Your task to perform on an android device: change keyboard looks Image 0: 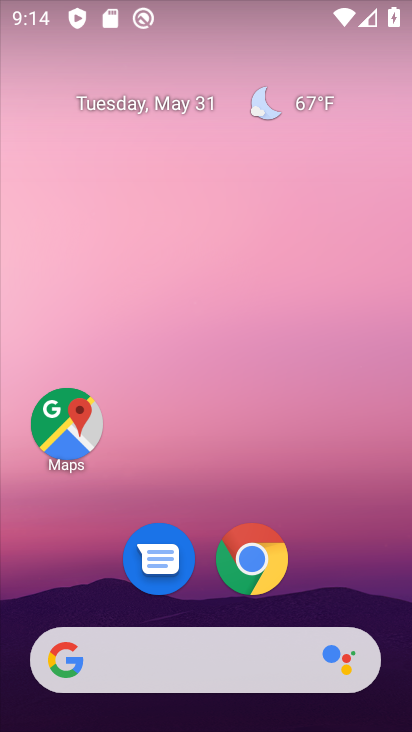
Step 0: drag from (311, 581) to (245, 73)
Your task to perform on an android device: change keyboard looks Image 1: 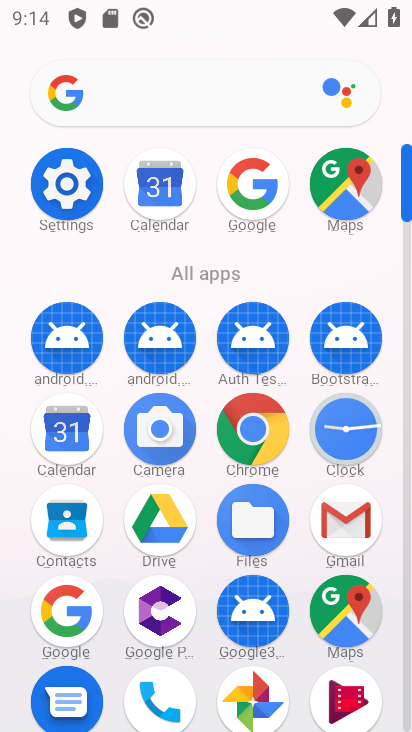
Step 1: click (65, 188)
Your task to perform on an android device: change keyboard looks Image 2: 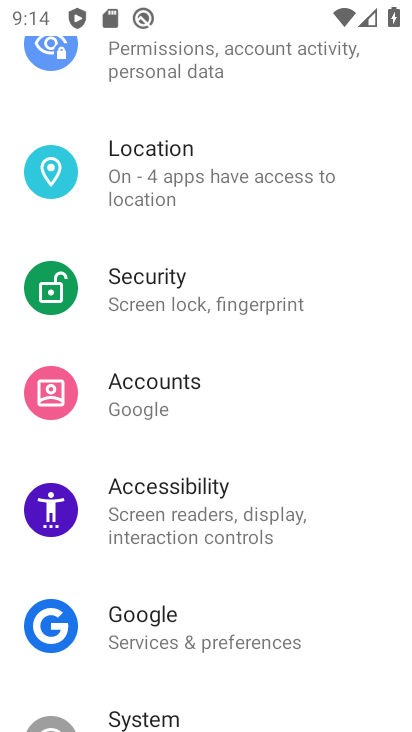
Step 2: drag from (238, 673) to (226, 350)
Your task to perform on an android device: change keyboard looks Image 3: 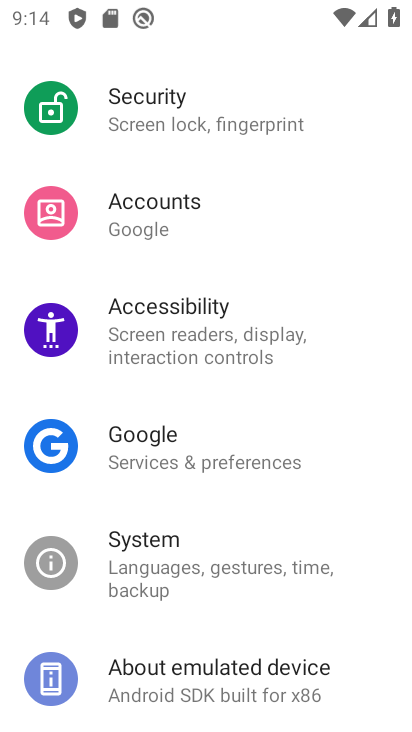
Step 3: click (194, 572)
Your task to perform on an android device: change keyboard looks Image 4: 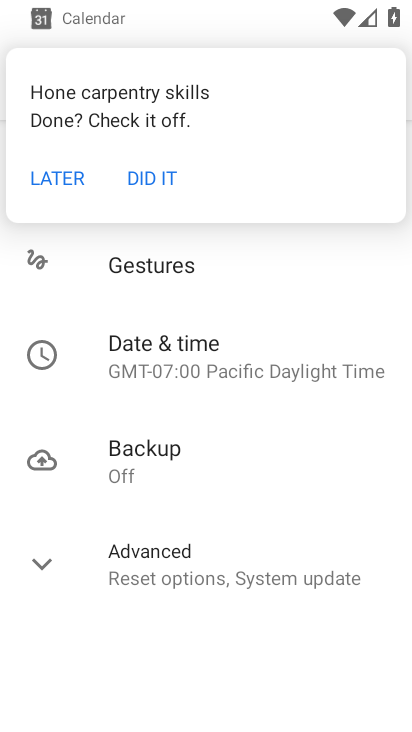
Step 4: click (184, 166)
Your task to perform on an android device: change keyboard looks Image 5: 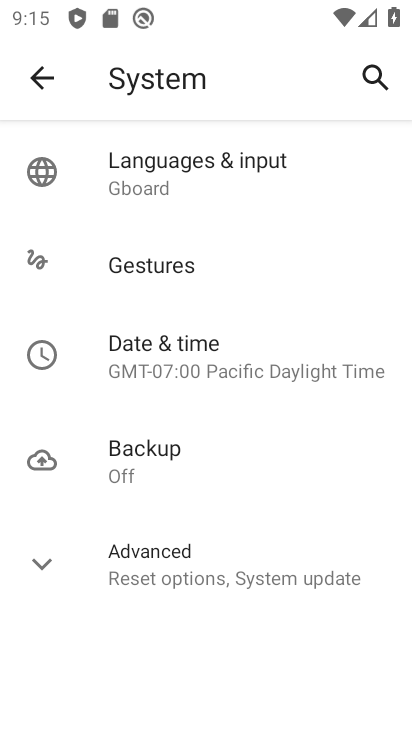
Step 5: click (163, 172)
Your task to perform on an android device: change keyboard looks Image 6: 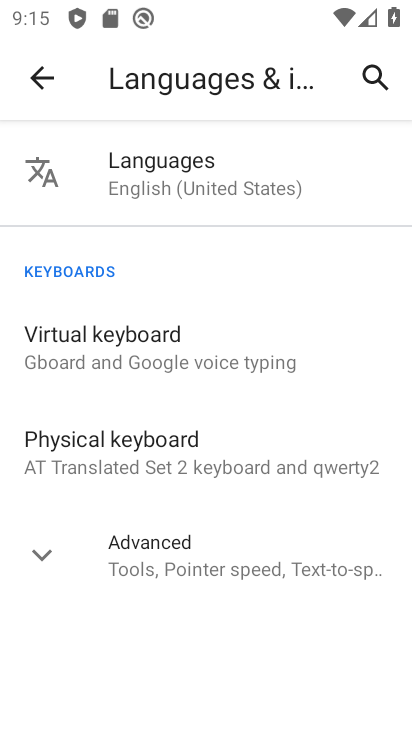
Step 6: click (146, 356)
Your task to perform on an android device: change keyboard looks Image 7: 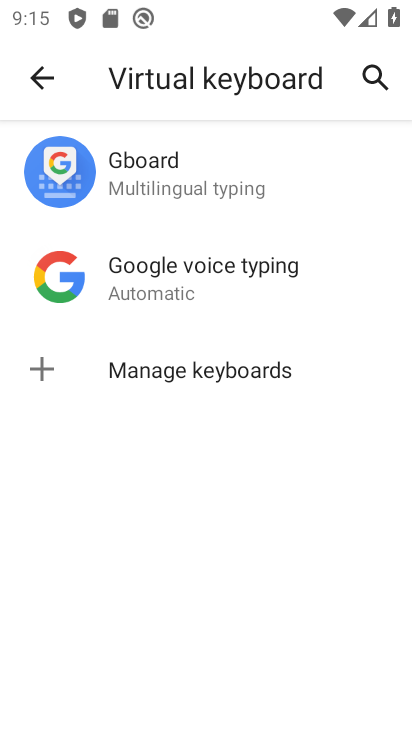
Step 7: click (142, 174)
Your task to perform on an android device: change keyboard looks Image 8: 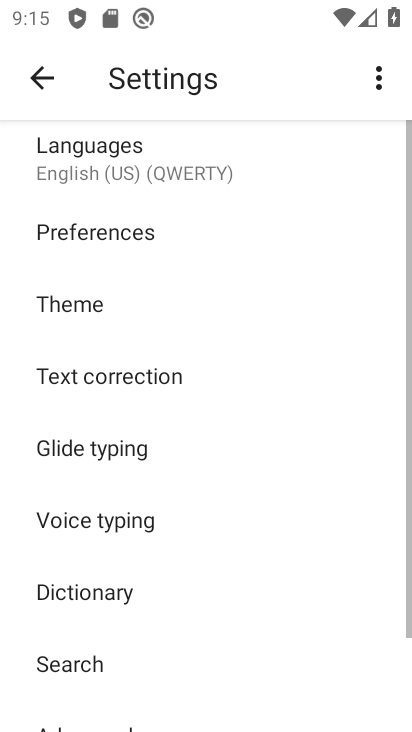
Step 8: click (132, 292)
Your task to perform on an android device: change keyboard looks Image 9: 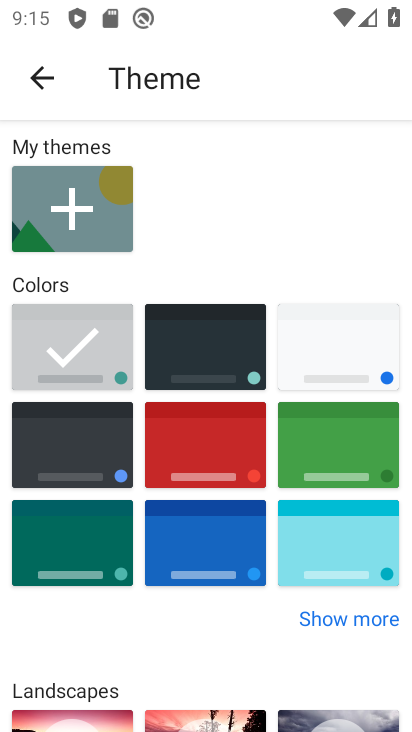
Step 9: click (193, 349)
Your task to perform on an android device: change keyboard looks Image 10: 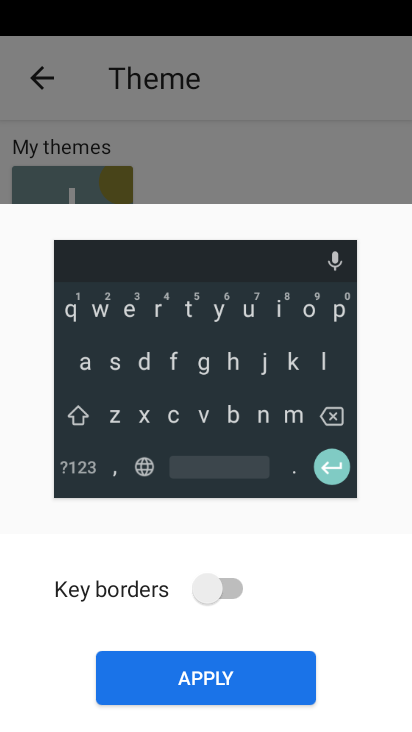
Step 10: click (233, 678)
Your task to perform on an android device: change keyboard looks Image 11: 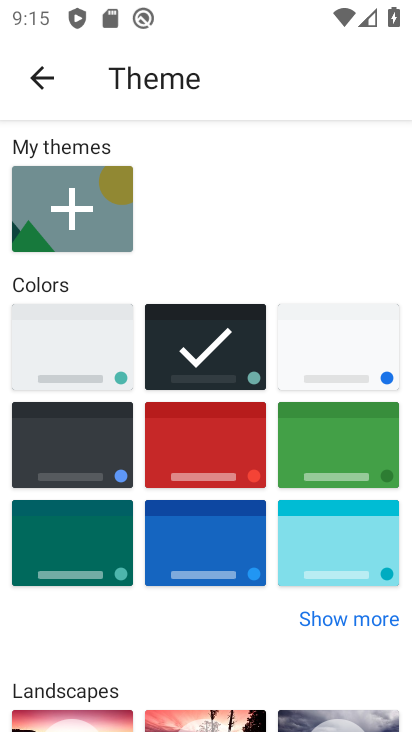
Step 11: task complete